Your task to perform on an android device: check battery use Image 0: 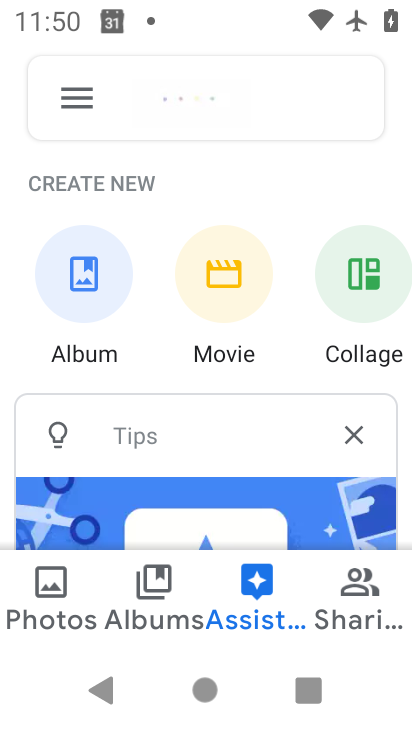
Step 0: press home button
Your task to perform on an android device: check battery use Image 1: 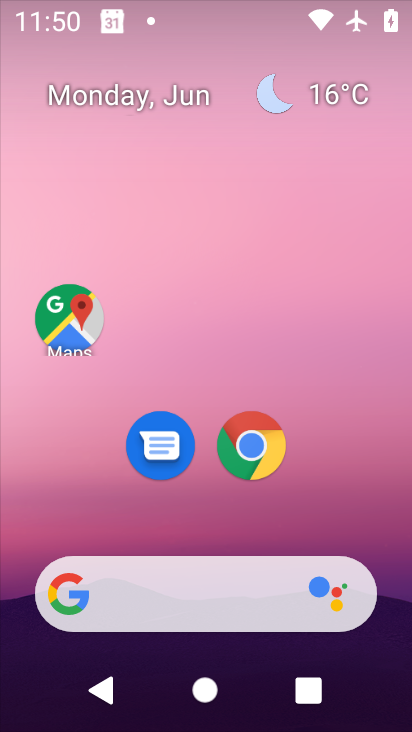
Step 1: drag from (294, 526) to (292, 131)
Your task to perform on an android device: check battery use Image 2: 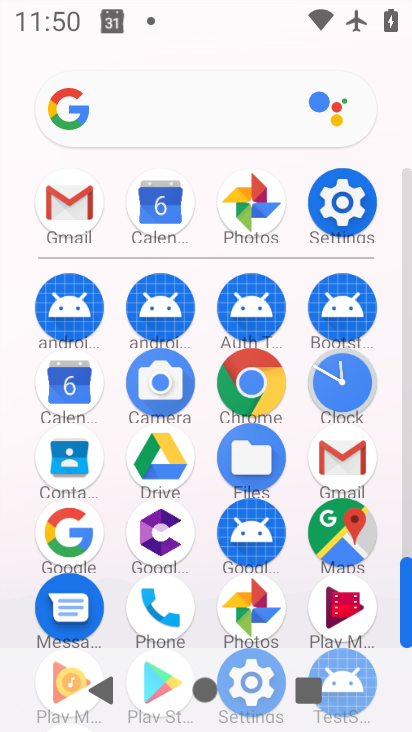
Step 2: click (338, 189)
Your task to perform on an android device: check battery use Image 3: 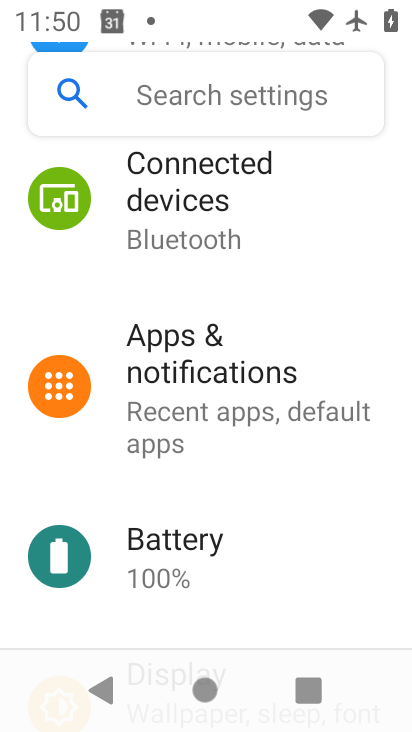
Step 3: click (148, 560)
Your task to perform on an android device: check battery use Image 4: 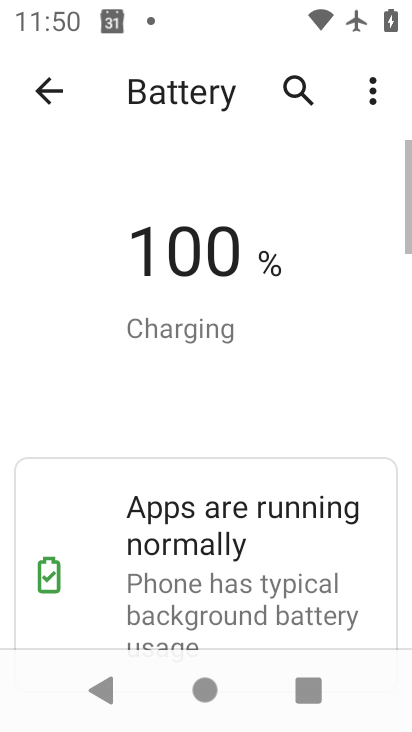
Step 4: click (373, 87)
Your task to perform on an android device: check battery use Image 5: 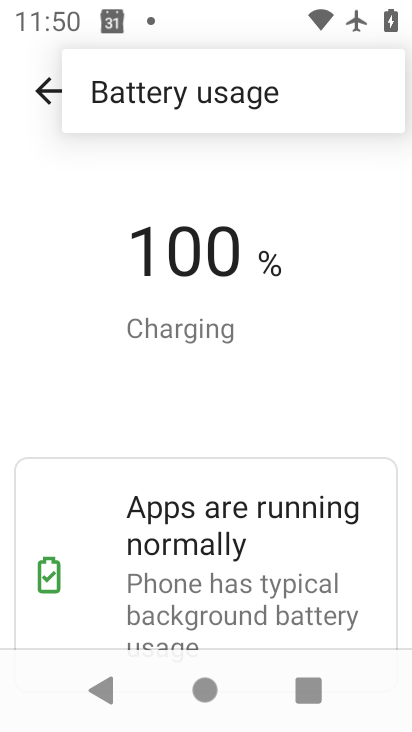
Step 5: click (233, 107)
Your task to perform on an android device: check battery use Image 6: 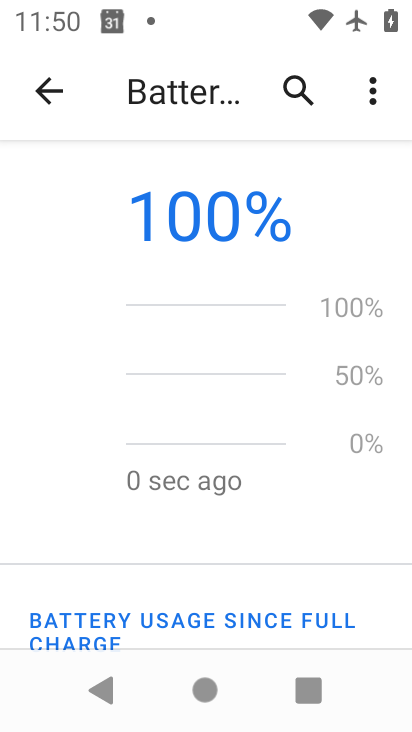
Step 6: task complete